Your task to perform on an android device: refresh tabs in the chrome app Image 0: 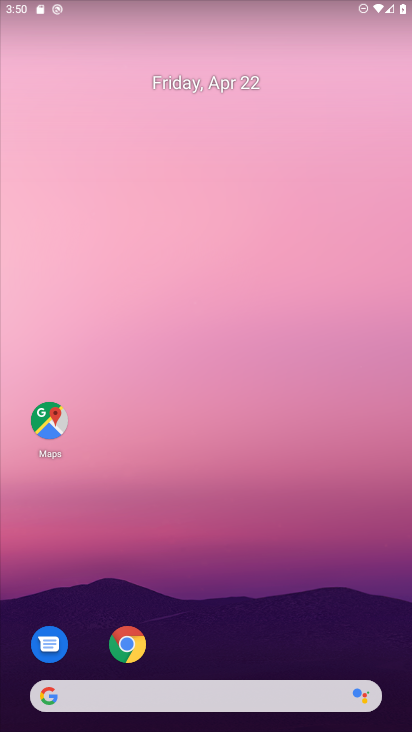
Step 0: click (230, 143)
Your task to perform on an android device: refresh tabs in the chrome app Image 1: 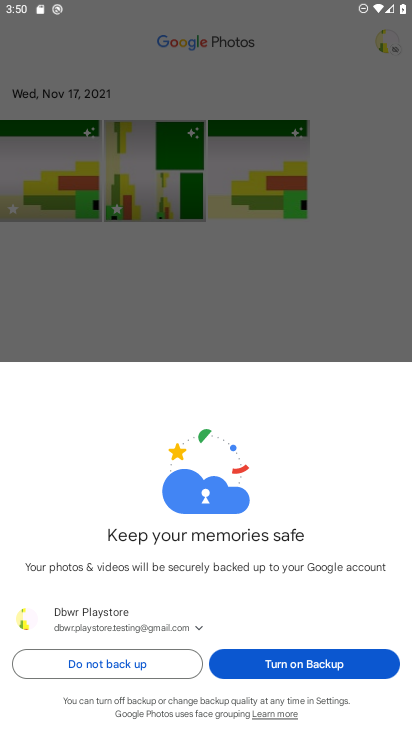
Step 1: press home button
Your task to perform on an android device: refresh tabs in the chrome app Image 2: 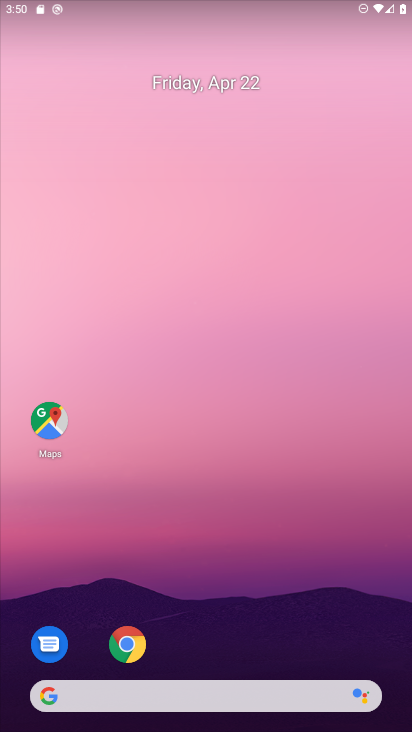
Step 2: drag from (247, 634) to (318, 60)
Your task to perform on an android device: refresh tabs in the chrome app Image 3: 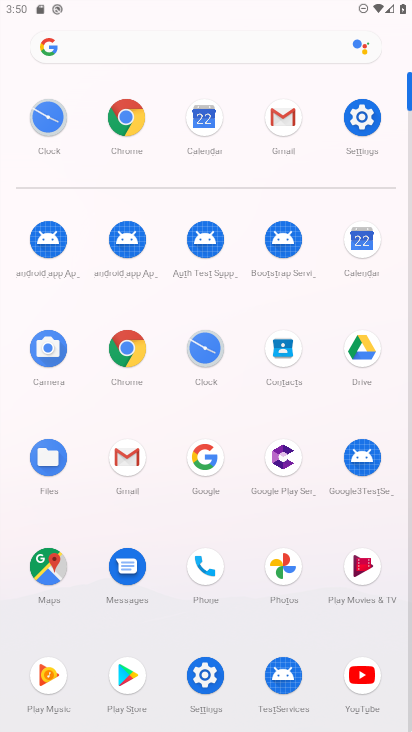
Step 3: click (124, 353)
Your task to perform on an android device: refresh tabs in the chrome app Image 4: 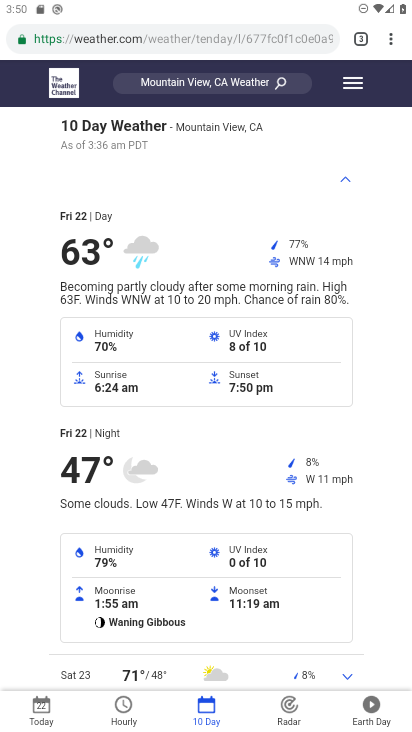
Step 4: click (391, 37)
Your task to perform on an android device: refresh tabs in the chrome app Image 5: 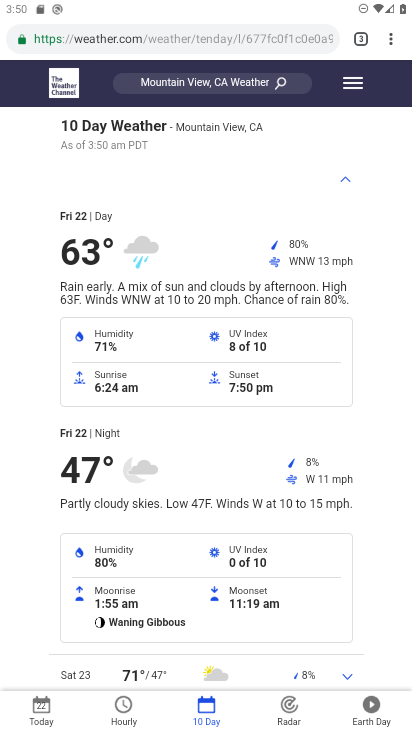
Step 5: task complete